Your task to perform on an android device: add a contact Image 0: 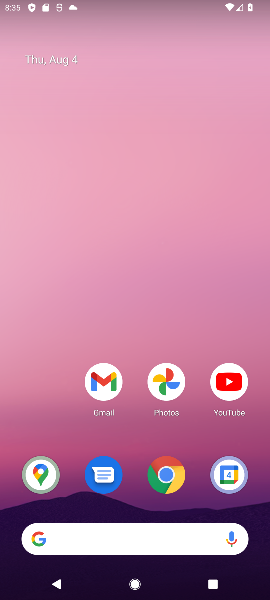
Step 0: drag from (130, 501) to (153, 207)
Your task to perform on an android device: add a contact Image 1: 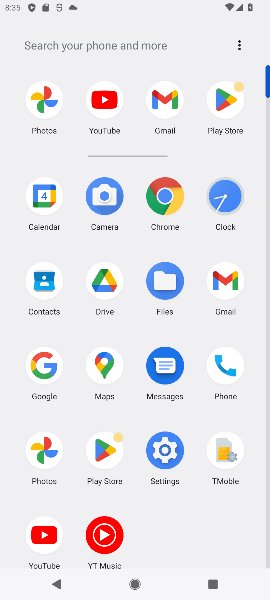
Step 1: click (52, 286)
Your task to perform on an android device: add a contact Image 2: 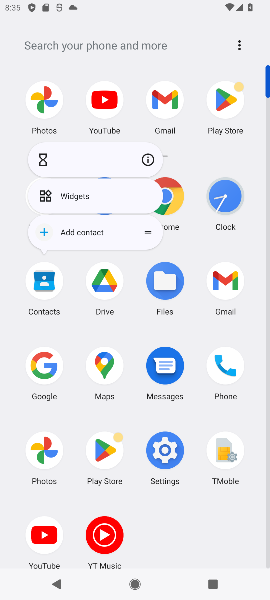
Step 2: click (150, 155)
Your task to perform on an android device: add a contact Image 3: 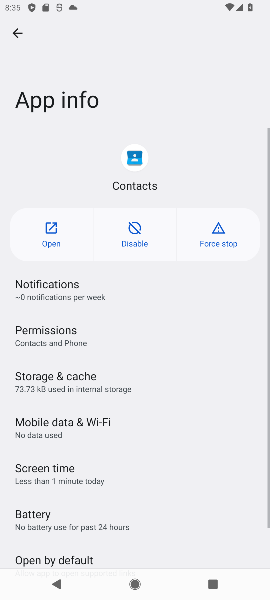
Step 3: click (17, 242)
Your task to perform on an android device: add a contact Image 4: 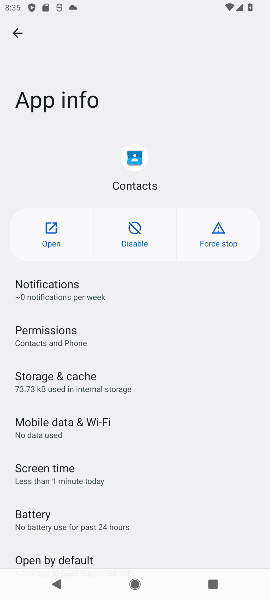
Step 4: click (66, 227)
Your task to perform on an android device: add a contact Image 5: 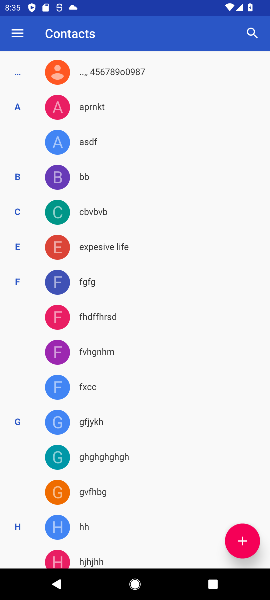
Step 5: click (239, 547)
Your task to perform on an android device: add a contact Image 6: 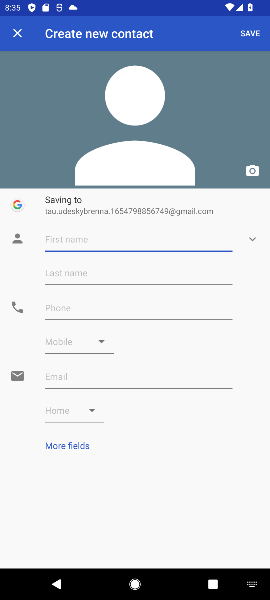
Step 6: click (74, 240)
Your task to perform on an android device: add a contact Image 7: 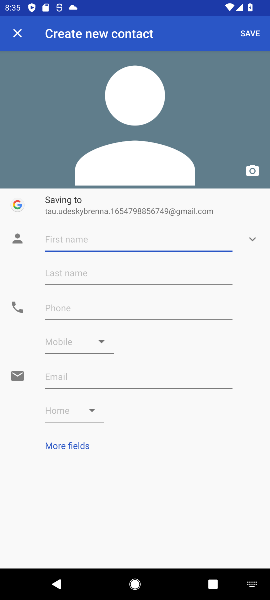
Step 7: type "mzjxka"
Your task to perform on an android device: add a contact Image 8: 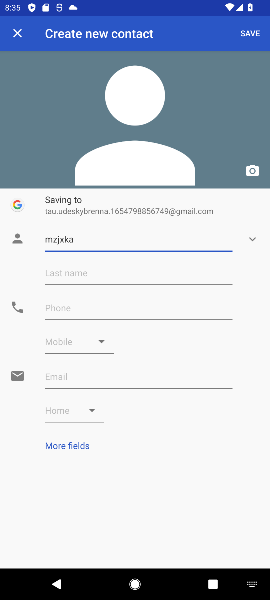
Step 8: click (256, 33)
Your task to perform on an android device: add a contact Image 9: 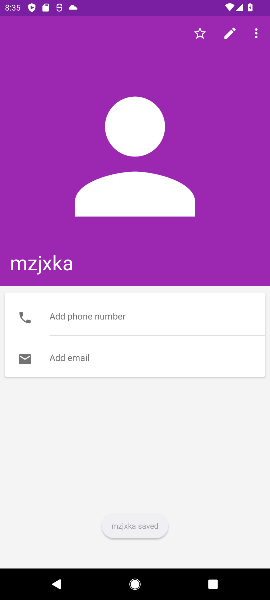
Step 9: task complete